Your task to perform on an android device: Open Youtube and go to "Your channel" Image 0: 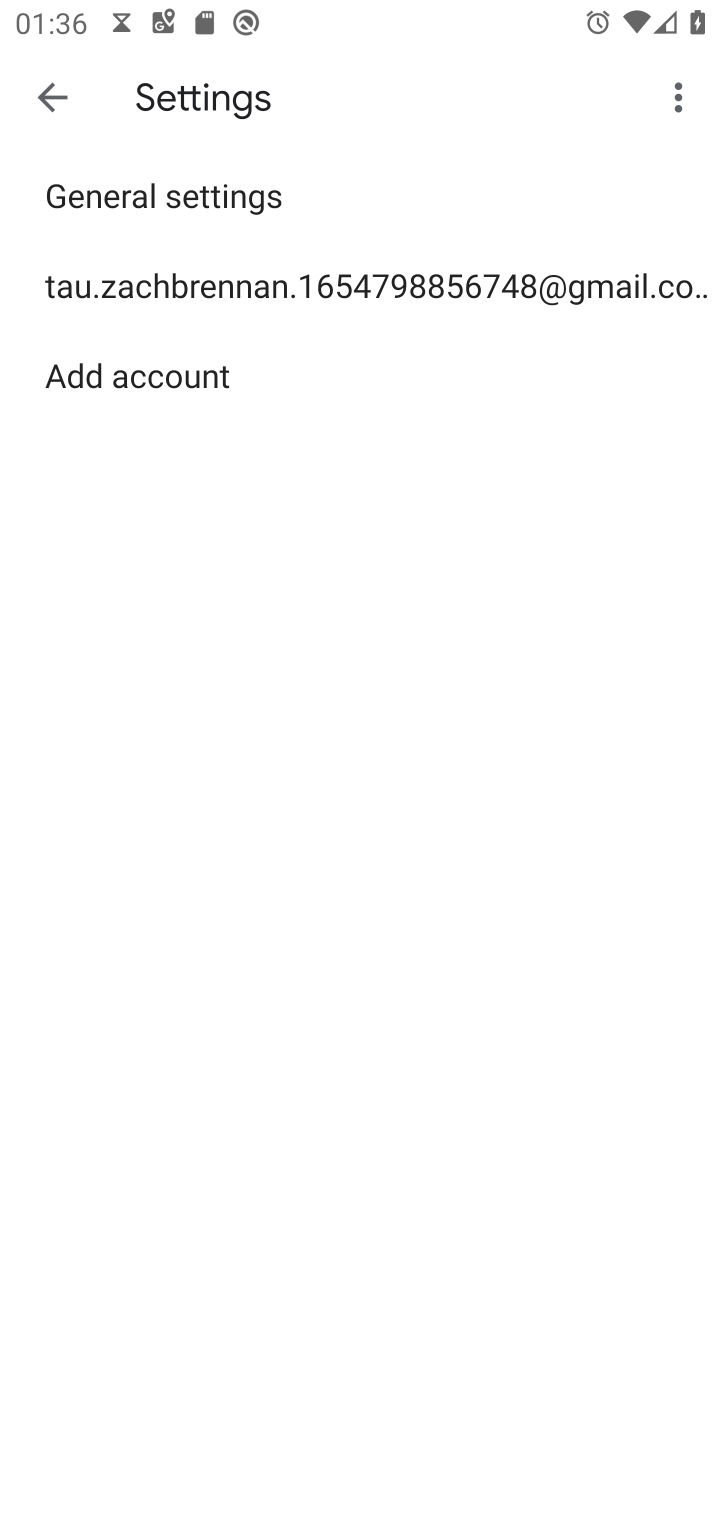
Step 0: press home button
Your task to perform on an android device: Open Youtube and go to "Your channel" Image 1: 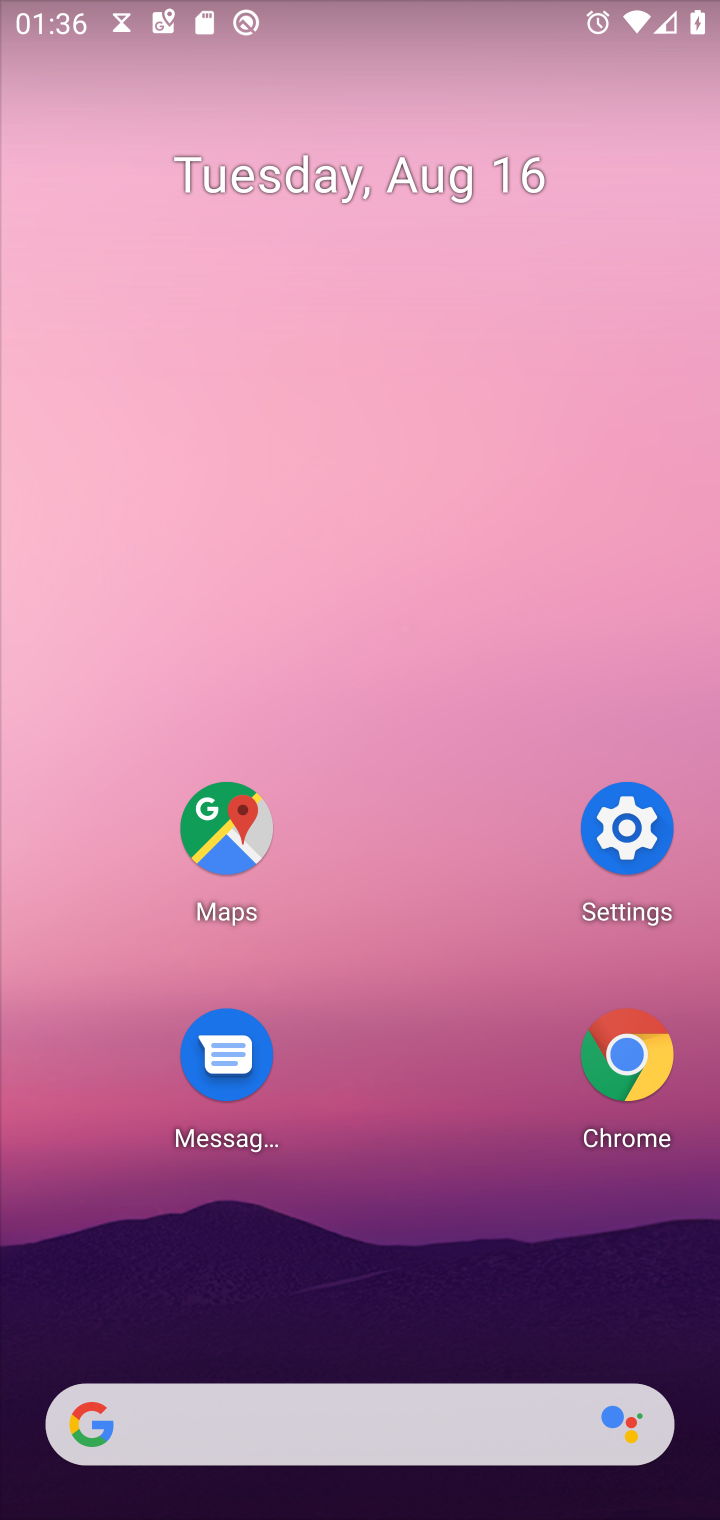
Step 1: drag from (427, 1029) to (627, 135)
Your task to perform on an android device: Open Youtube and go to "Your channel" Image 2: 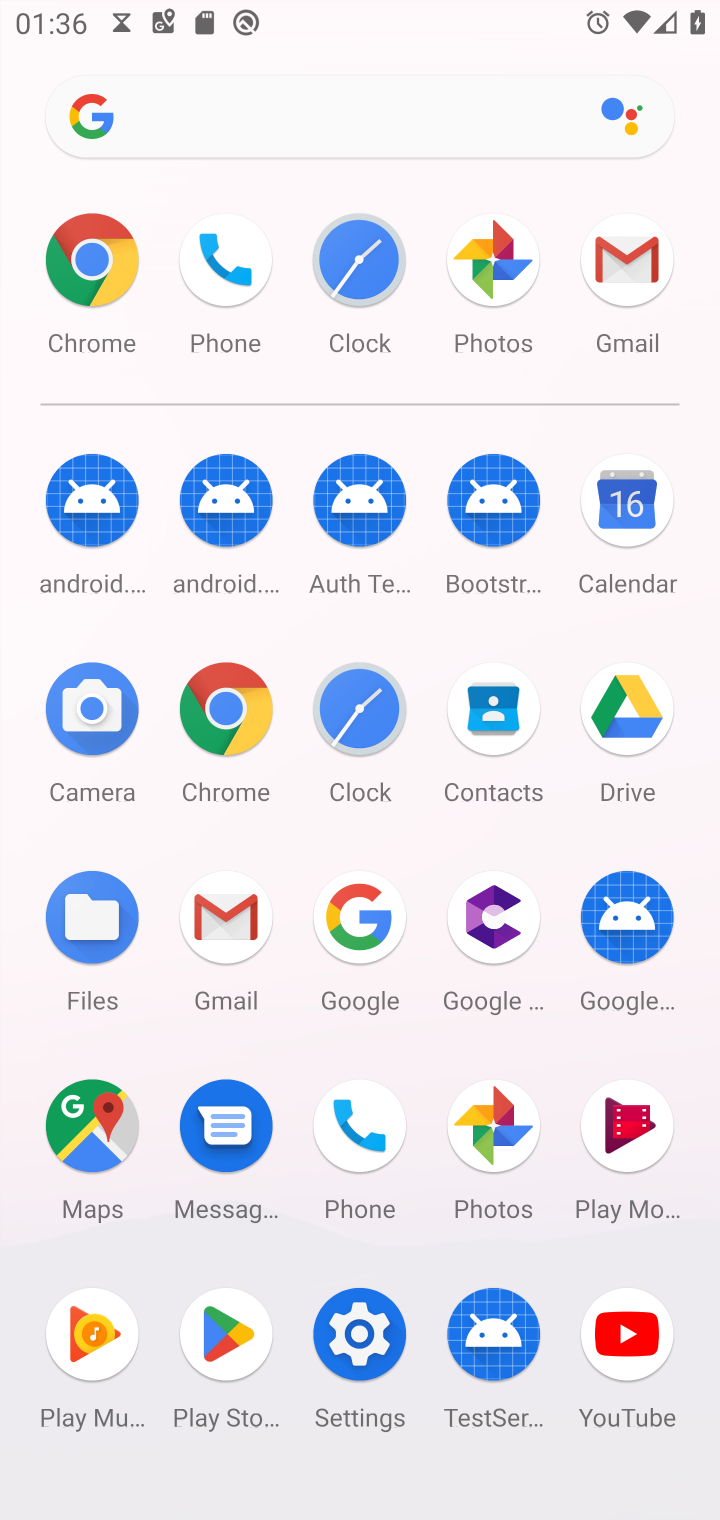
Step 2: click (616, 1343)
Your task to perform on an android device: Open Youtube and go to "Your channel" Image 3: 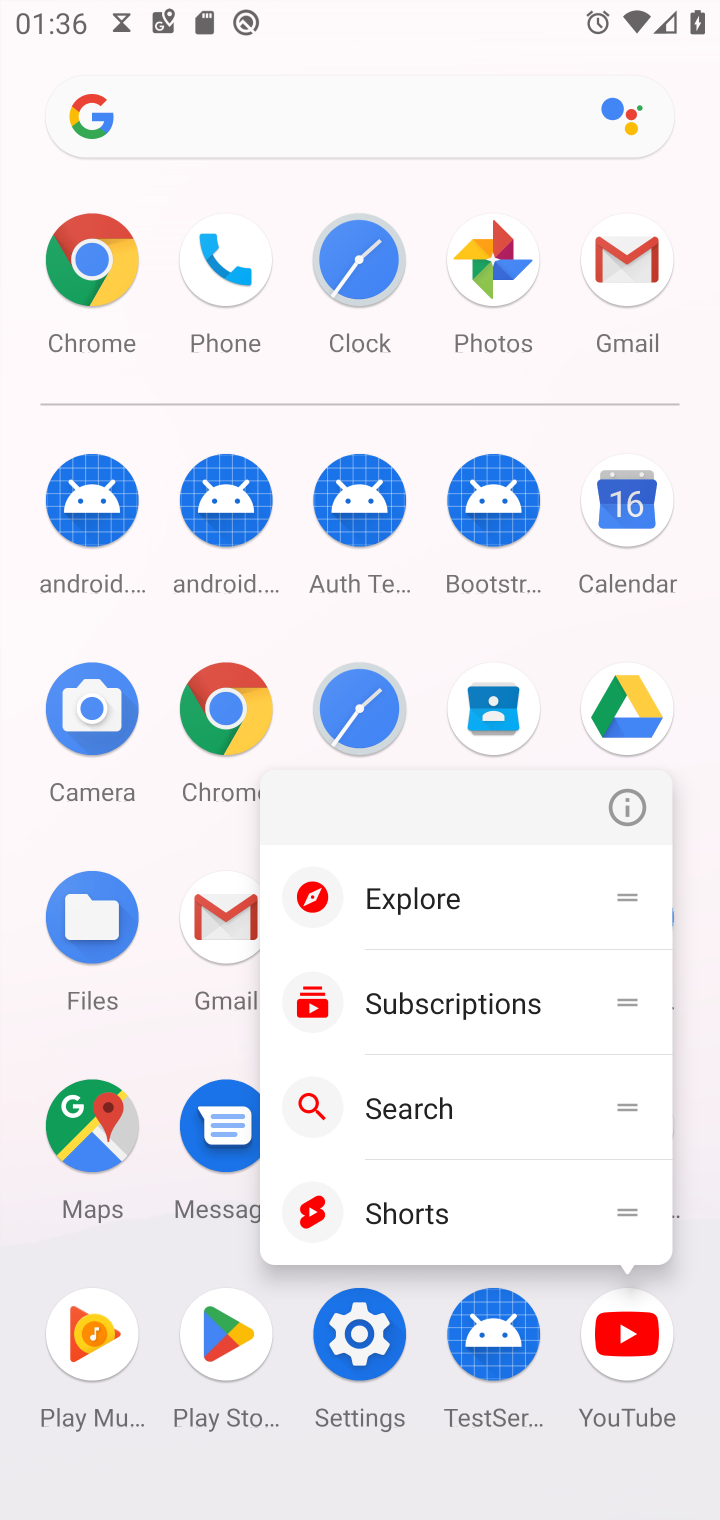
Step 3: click (621, 1343)
Your task to perform on an android device: Open Youtube and go to "Your channel" Image 4: 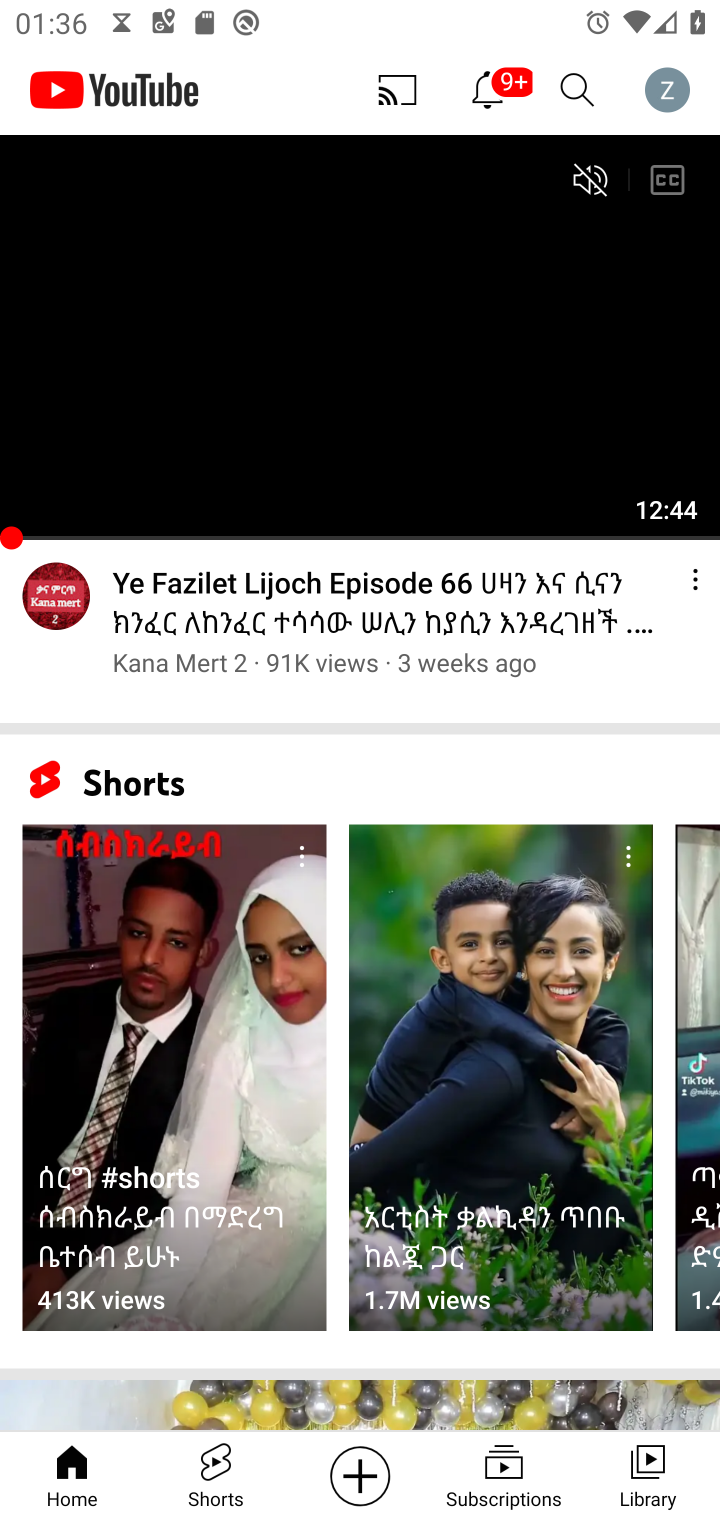
Step 4: click (676, 73)
Your task to perform on an android device: Open Youtube and go to "Your channel" Image 5: 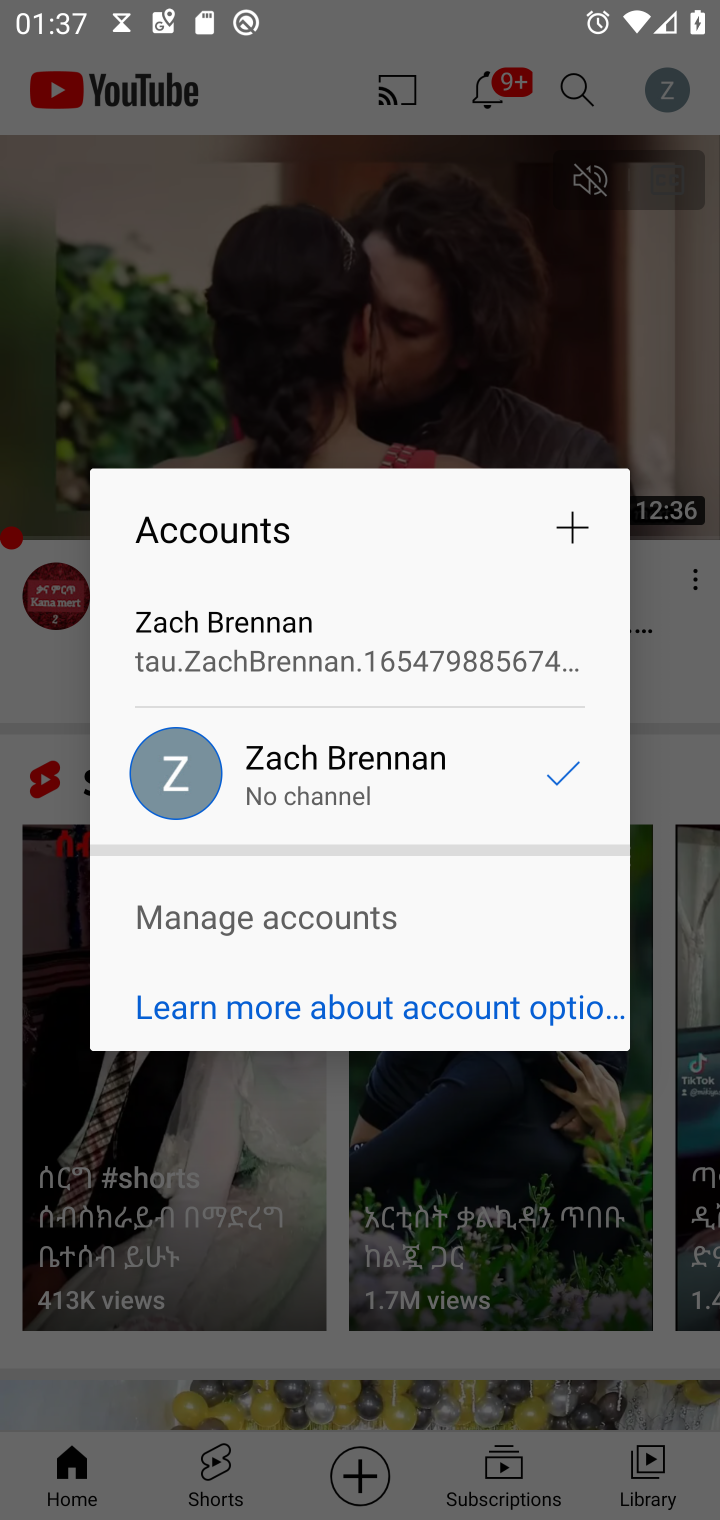
Step 5: click (664, 88)
Your task to perform on an android device: Open Youtube and go to "Your channel" Image 6: 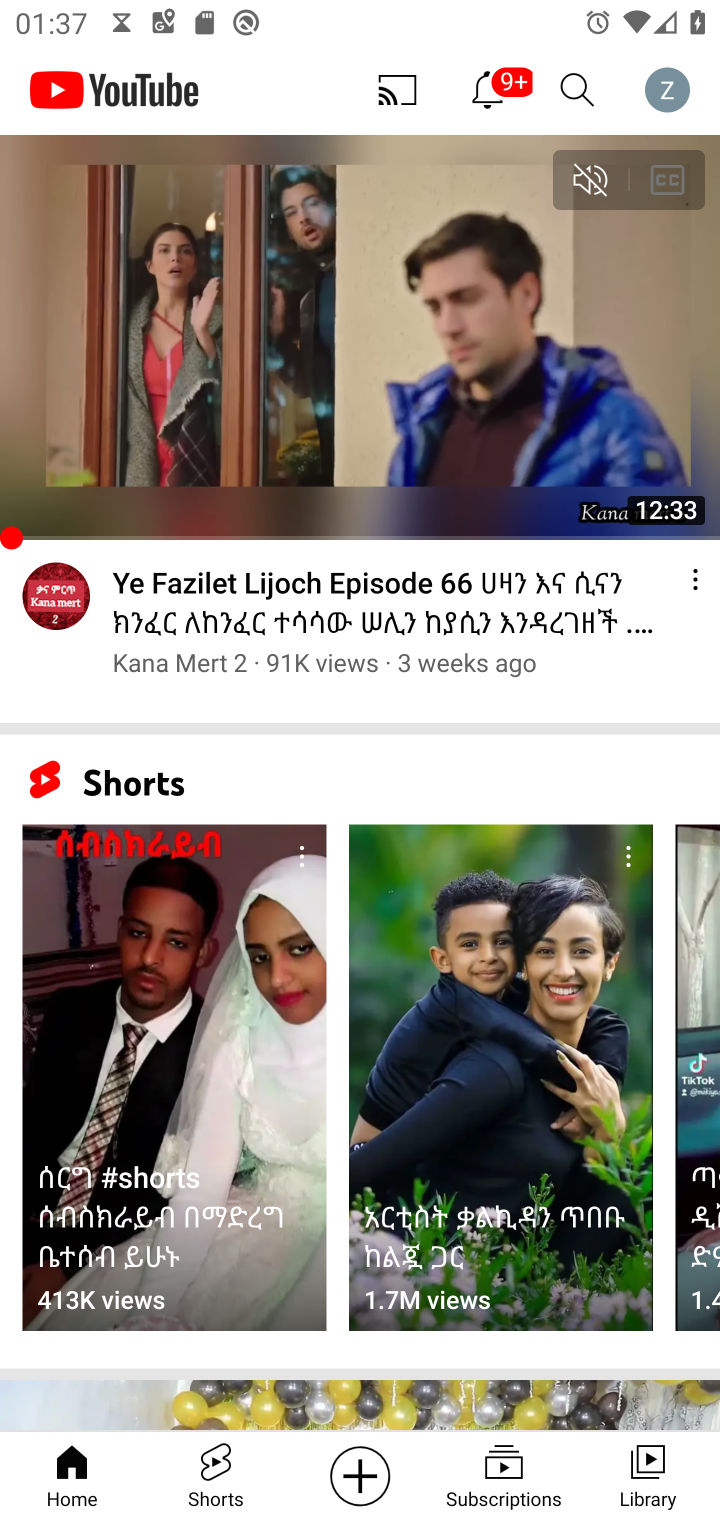
Step 6: click (664, 81)
Your task to perform on an android device: Open Youtube and go to "Your channel" Image 7: 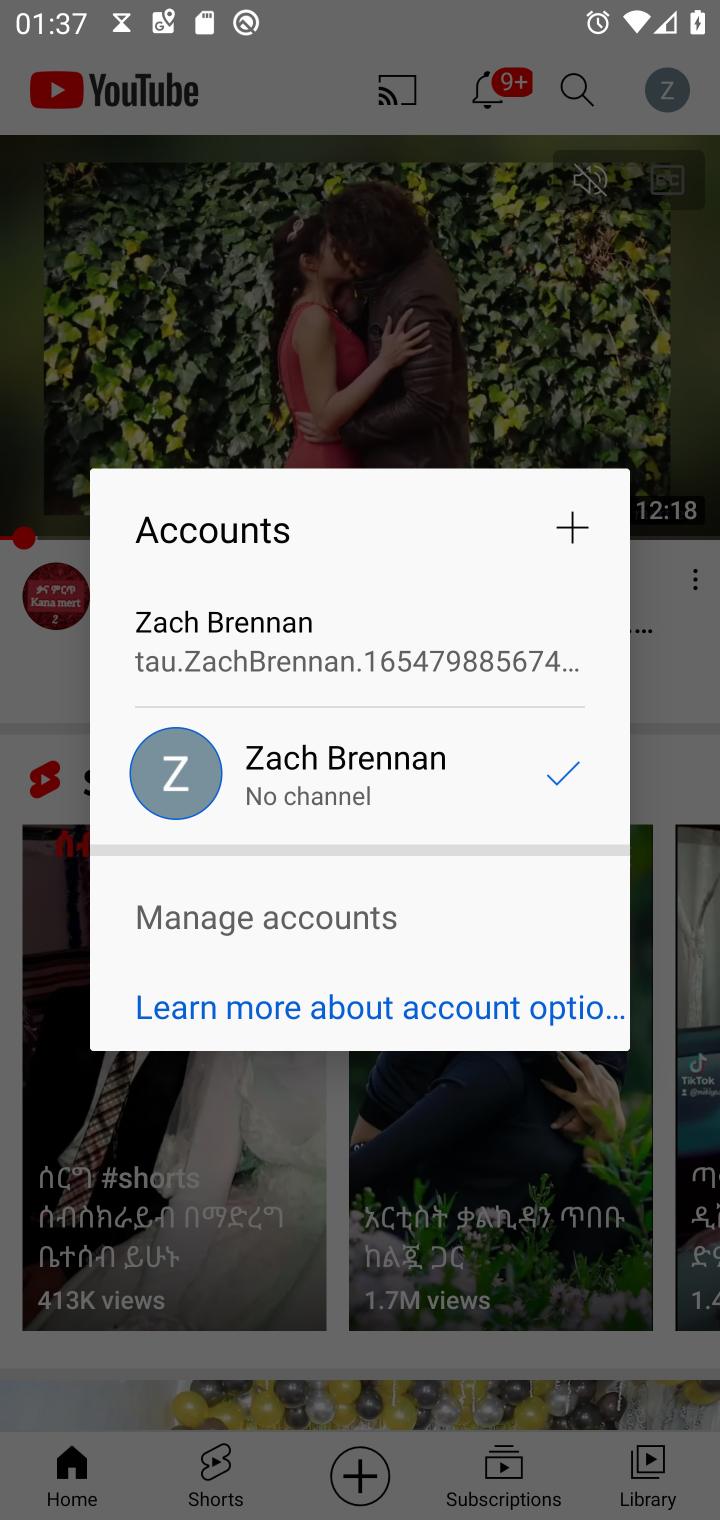
Step 7: task complete